Your task to perform on an android device: Search for seafood restaurants on Google Maps Image 0: 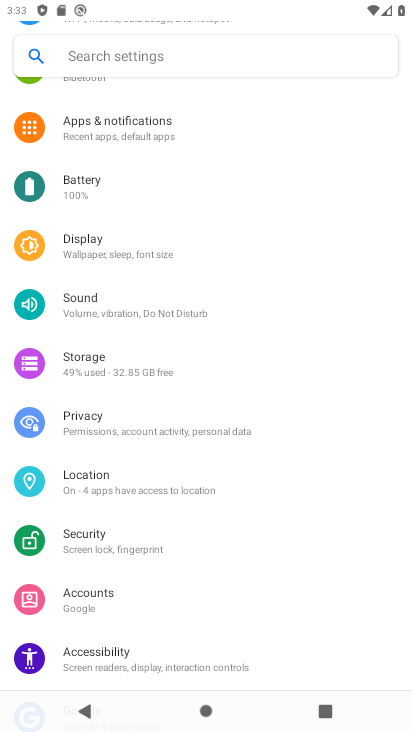
Step 0: press home button
Your task to perform on an android device: Search for seafood restaurants on Google Maps Image 1: 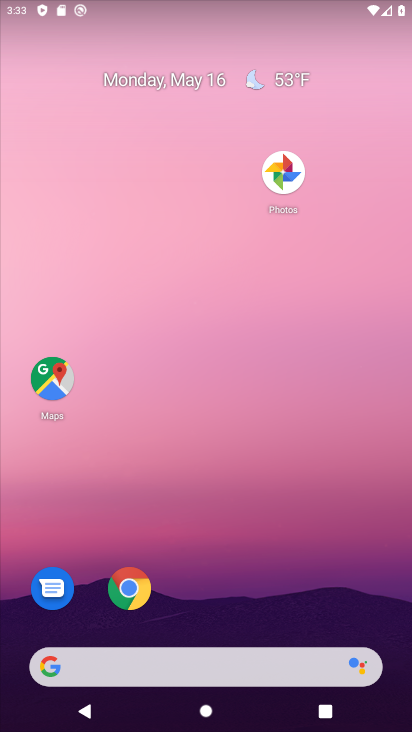
Step 1: click (52, 380)
Your task to perform on an android device: Search for seafood restaurants on Google Maps Image 2: 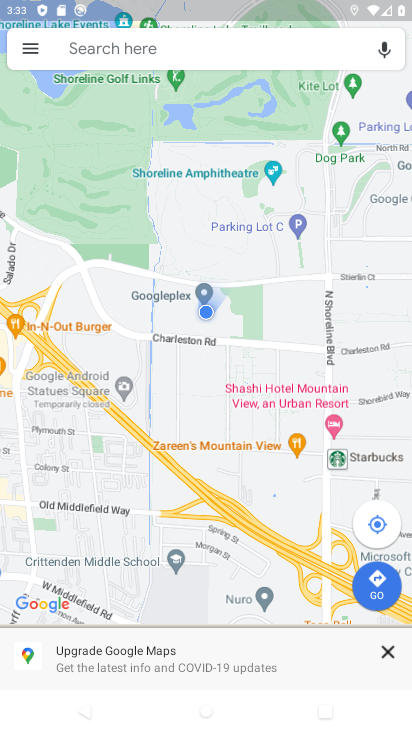
Step 2: click (201, 38)
Your task to perform on an android device: Search for seafood restaurants on Google Maps Image 3: 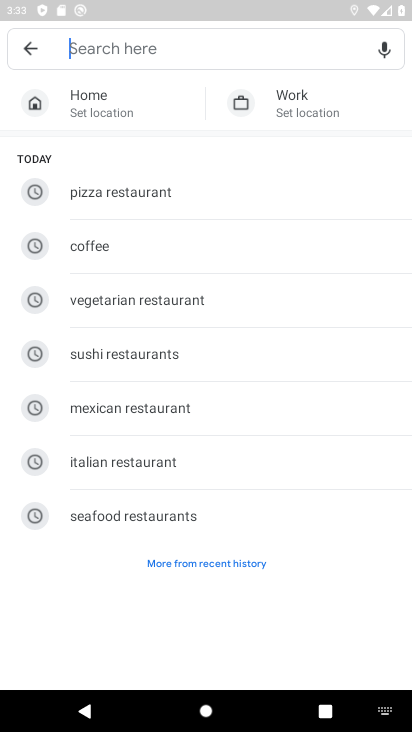
Step 3: type "seafood restaurant"
Your task to perform on an android device: Search for seafood restaurants on Google Maps Image 4: 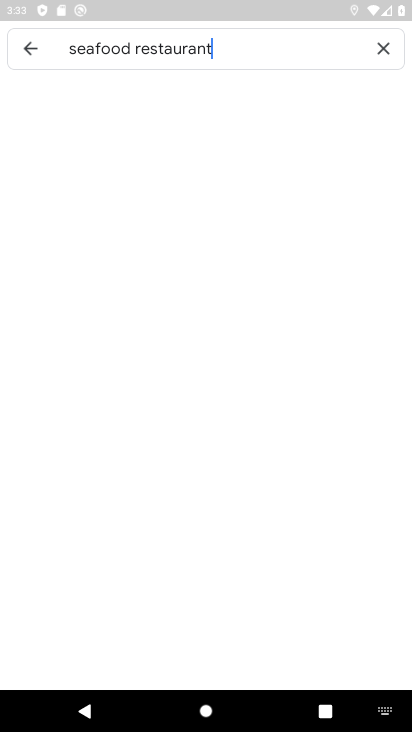
Step 4: type ""
Your task to perform on an android device: Search for seafood restaurants on Google Maps Image 5: 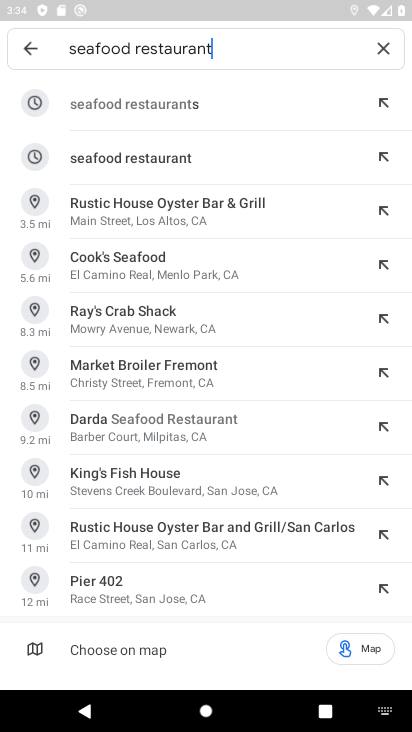
Step 5: click (258, 91)
Your task to perform on an android device: Search for seafood restaurants on Google Maps Image 6: 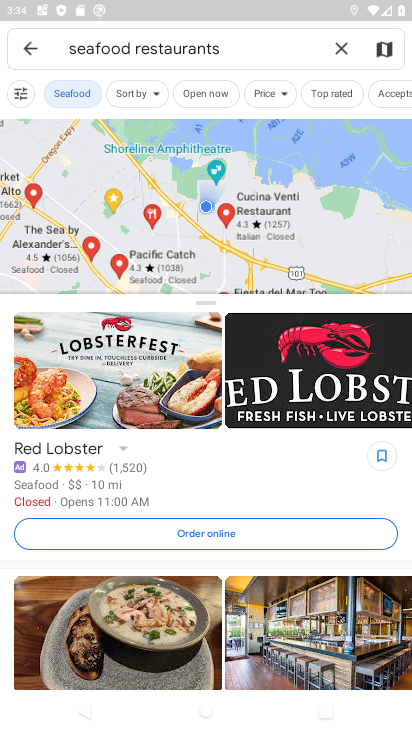
Step 6: task complete